Your task to perform on an android device: delete the emails in spam in the gmail app Image 0: 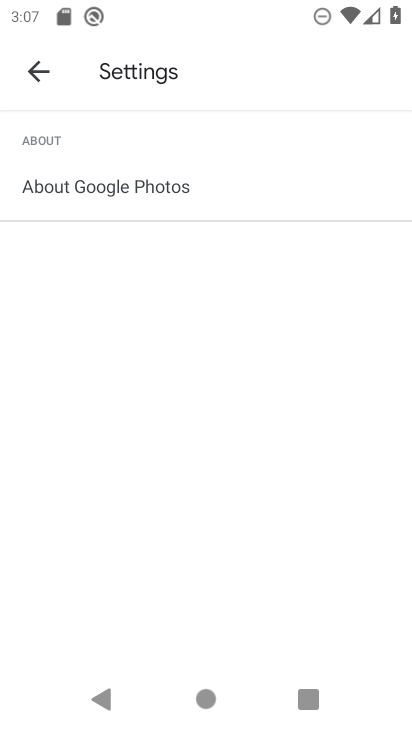
Step 0: press home button
Your task to perform on an android device: delete the emails in spam in the gmail app Image 1: 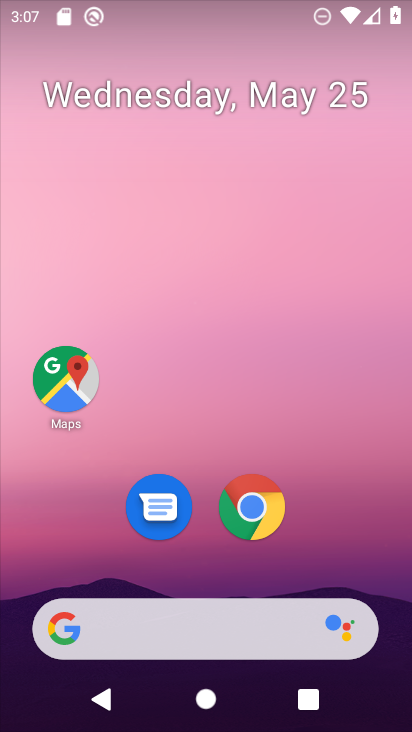
Step 1: drag from (265, 630) to (407, 288)
Your task to perform on an android device: delete the emails in spam in the gmail app Image 2: 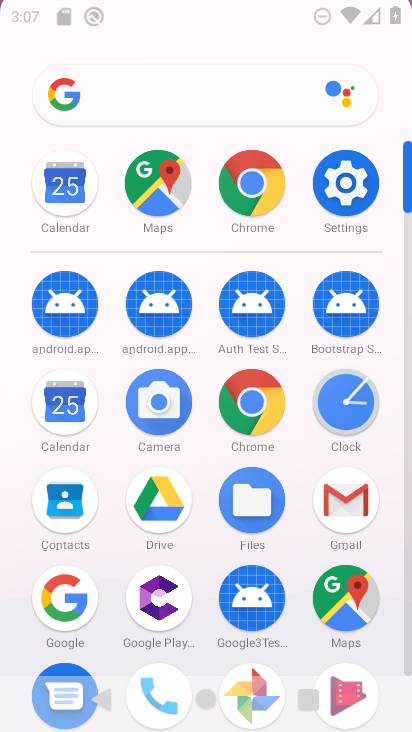
Step 2: click (355, 571)
Your task to perform on an android device: delete the emails in spam in the gmail app Image 3: 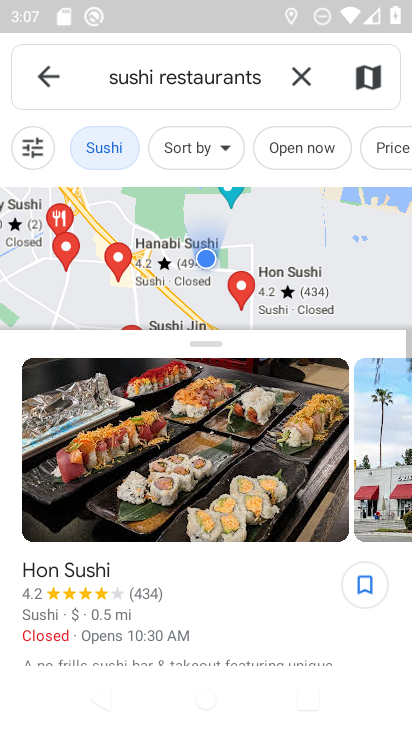
Step 3: press back button
Your task to perform on an android device: delete the emails in spam in the gmail app Image 4: 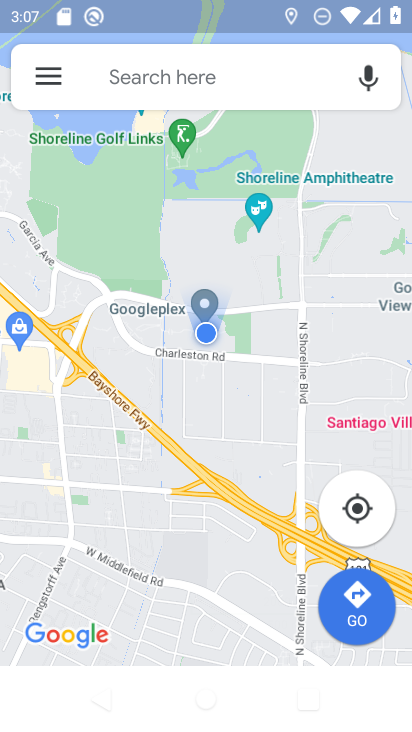
Step 4: press back button
Your task to perform on an android device: delete the emails in spam in the gmail app Image 5: 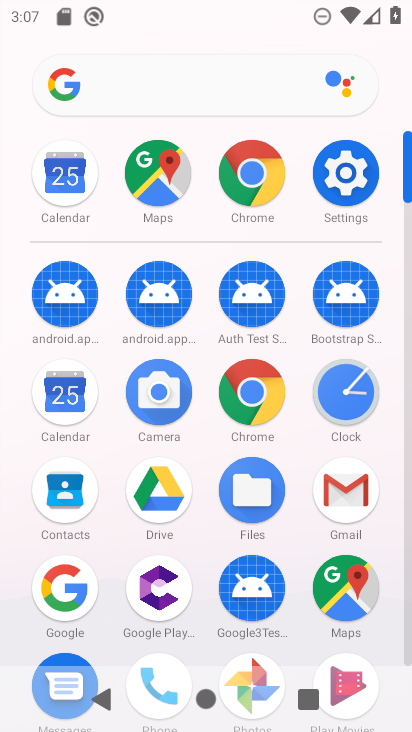
Step 5: click (350, 492)
Your task to perform on an android device: delete the emails in spam in the gmail app Image 6: 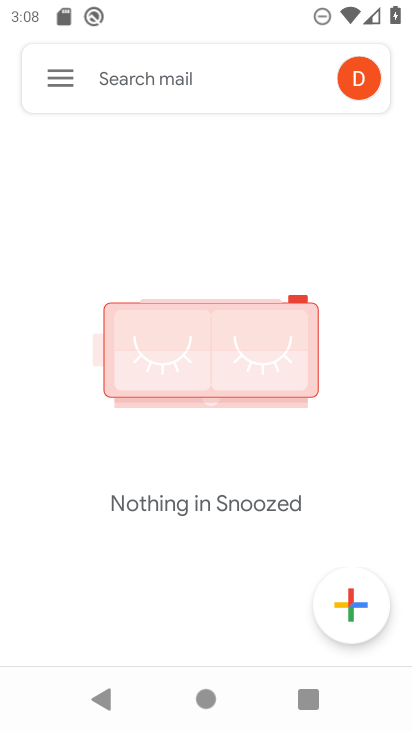
Step 6: click (69, 85)
Your task to perform on an android device: delete the emails in spam in the gmail app Image 7: 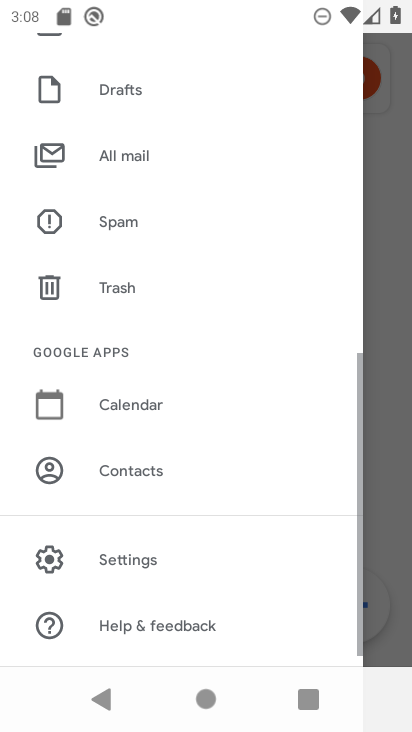
Step 7: drag from (87, 585) to (191, 322)
Your task to perform on an android device: delete the emails in spam in the gmail app Image 8: 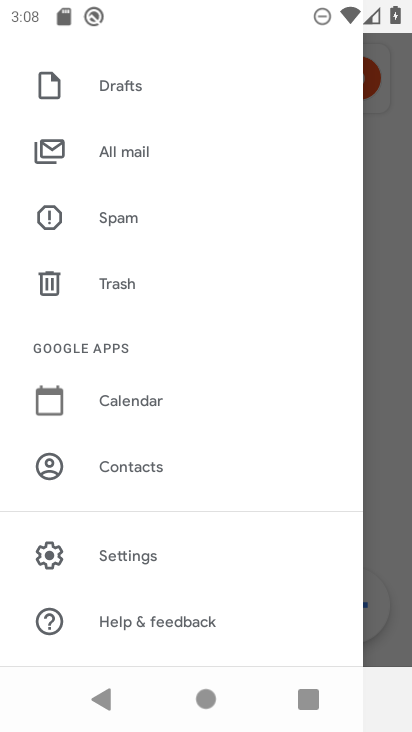
Step 8: click (144, 213)
Your task to perform on an android device: delete the emails in spam in the gmail app Image 9: 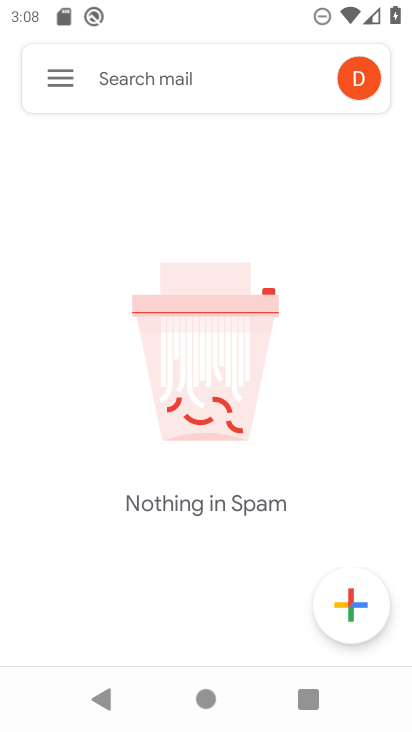
Step 9: task complete